Your task to perform on an android device: visit the assistant section in the google photos Image 0: 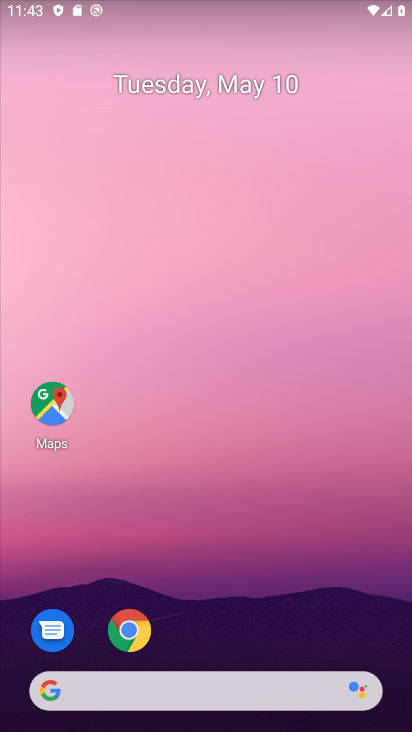
Step 0: drag from (211, 665) to (208, 3)
Your task to perform on an android device: visit the assistant section in the google photos Image 1: 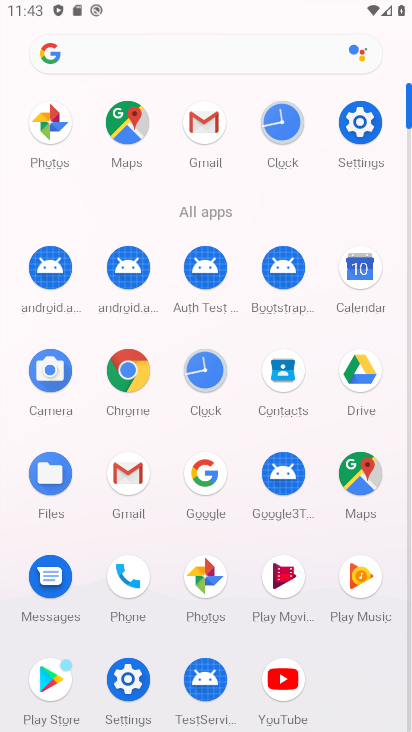
Step 1: click (211, 587)
Your task to perform on an android device: visit the assistant section in the google photos Image 2: 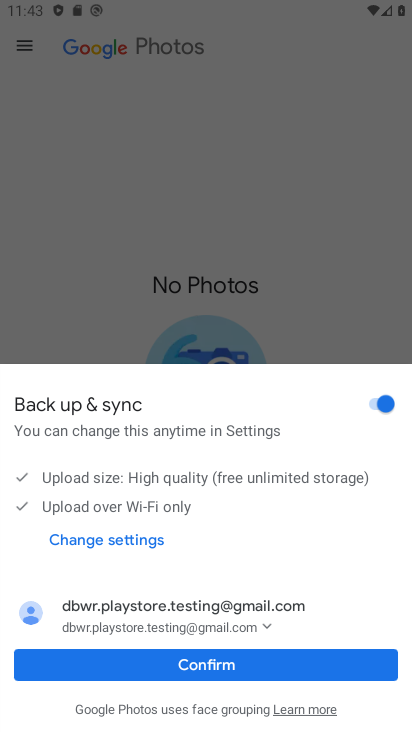
Step 2: click (231, 663)
Your task to perform on an android device: visit the assistant section in the google photos Image 3: 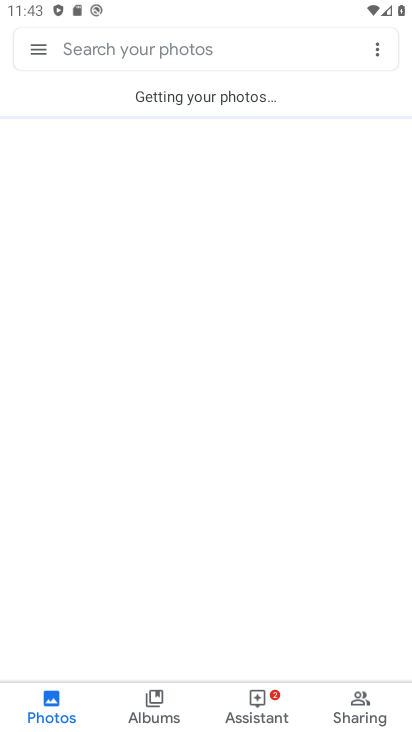
Step 3: click (242, 696)
Your task to perform on an android device: visit the assistant section in the google photos Image 4: 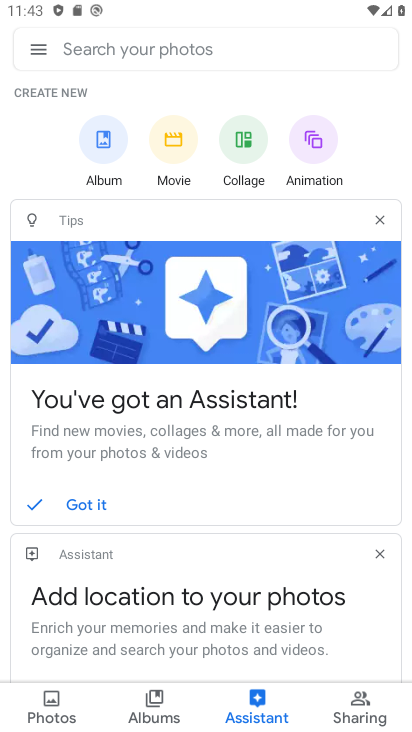
Step 4: task complete